Your task to perform on an android device: Open calendar and show me the third week of next month Image 0: 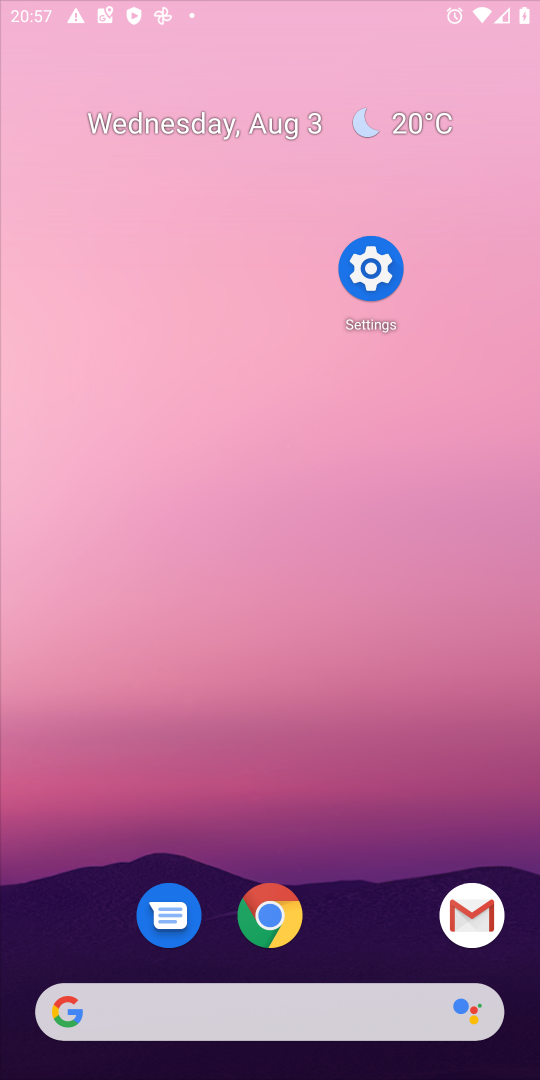
Step 0: press home button
Your task to perform on an android device: Open calendar and show me the third week of next month Image 1: 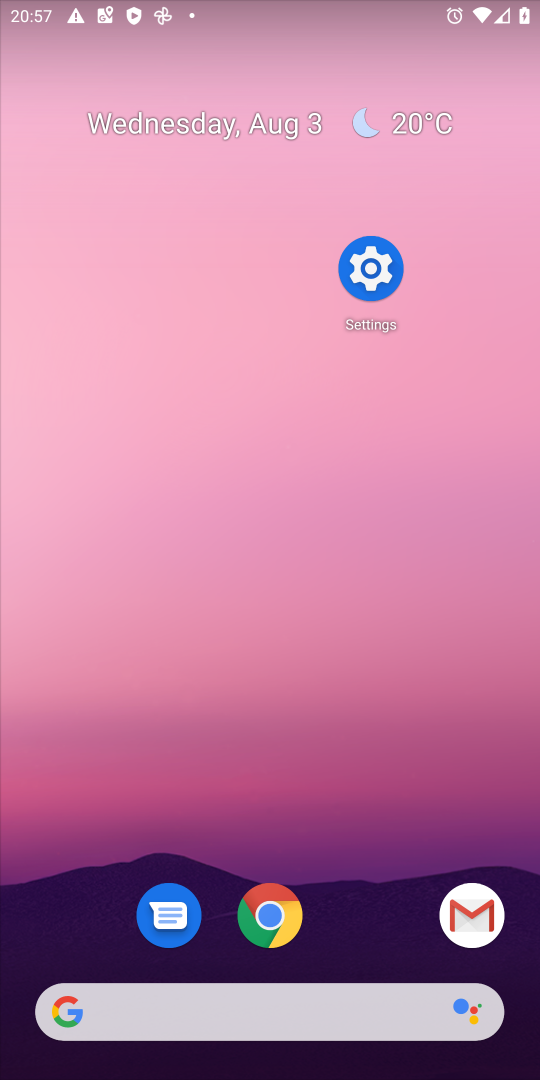
Step 1: drag from (353, 1009) to (251, 192)
Your task to perform on an android device: Open calendar and show me the third week of next month Image 2: 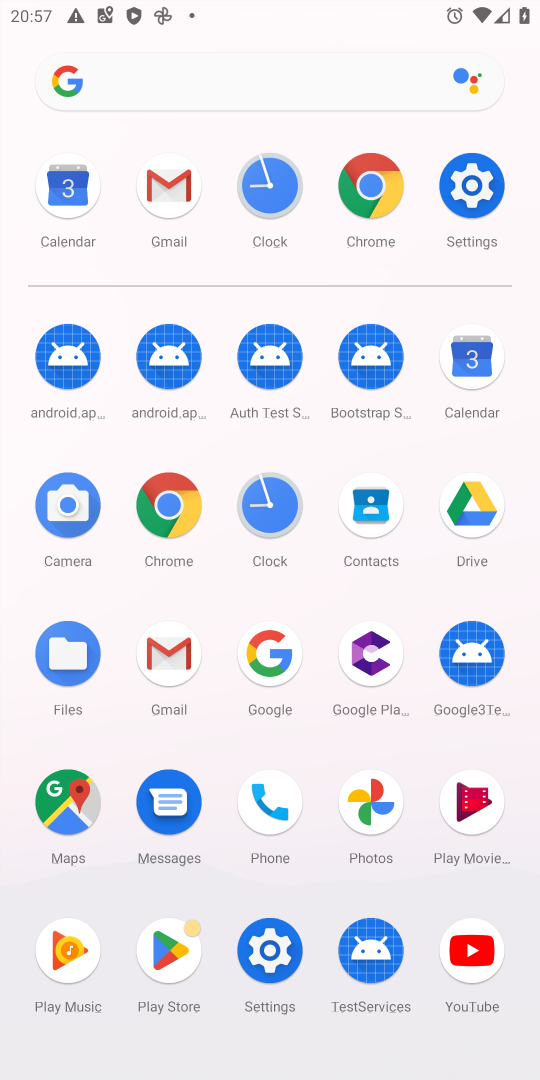
Step 2: click (477, 386)
Your task to perform on an android device: Open calendar and show me the third week of next month Image 3: 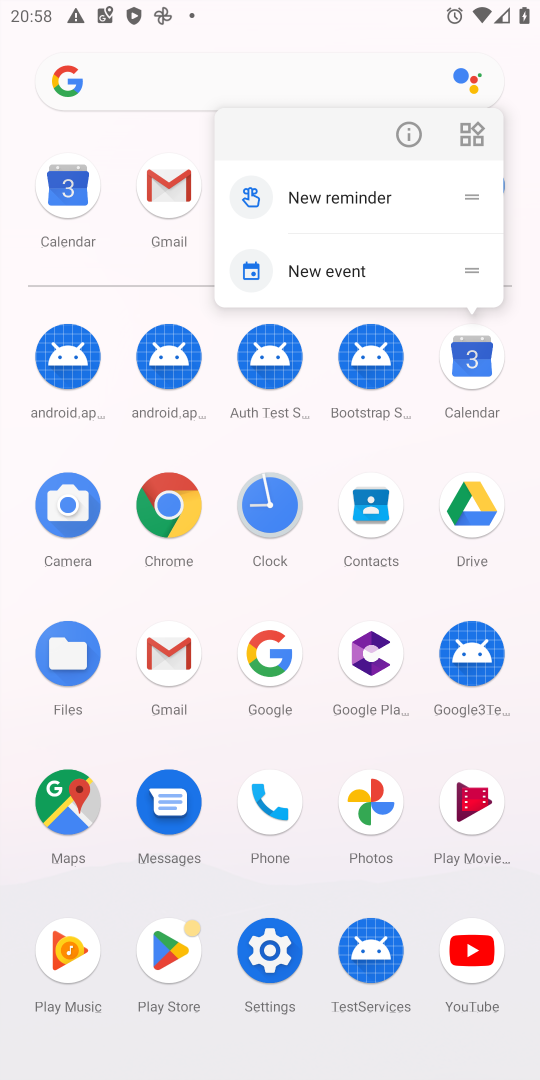
Step 3: click (468, 384)
Your task to perform on an android device: Open calendar and show me the third week of next month Image 4: 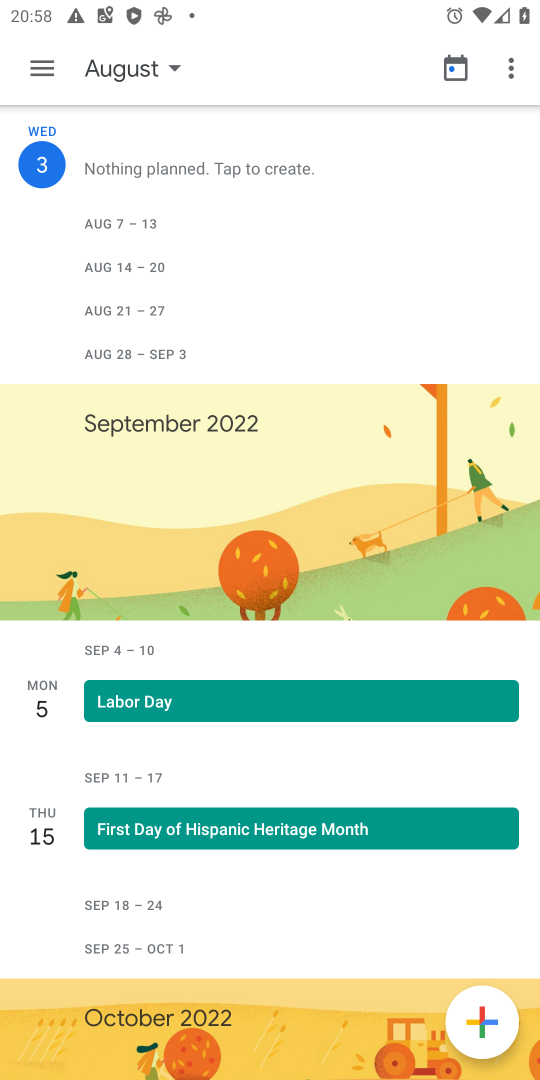
Step 4: click (23, 62)
Your task to perform on an android device: Open calendar and show me the third week of next month Image 5: 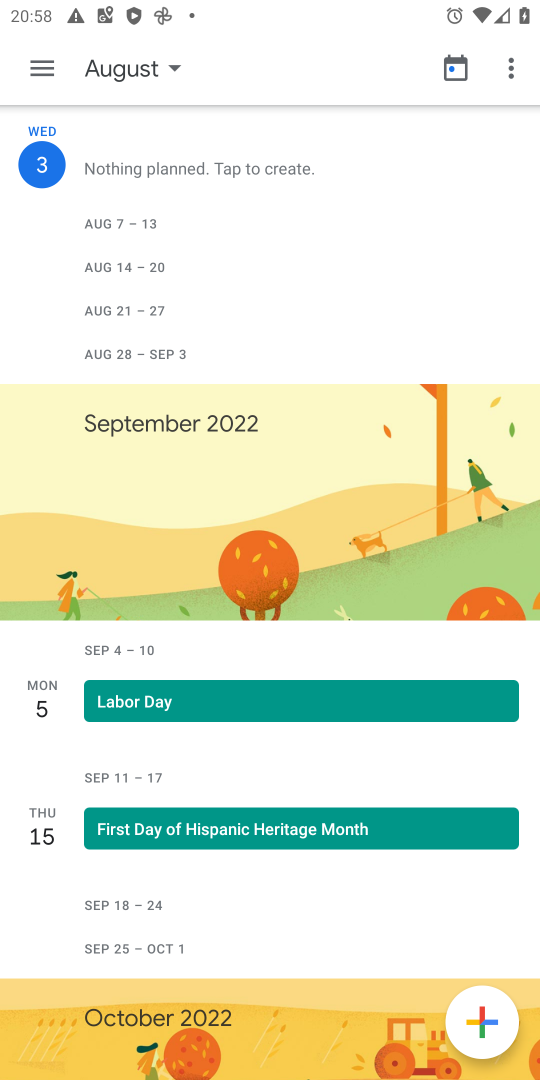
Step 5: click (44, 80)
Your task to perform on an android device: Open calendar and show me the third week of next month Image 6: 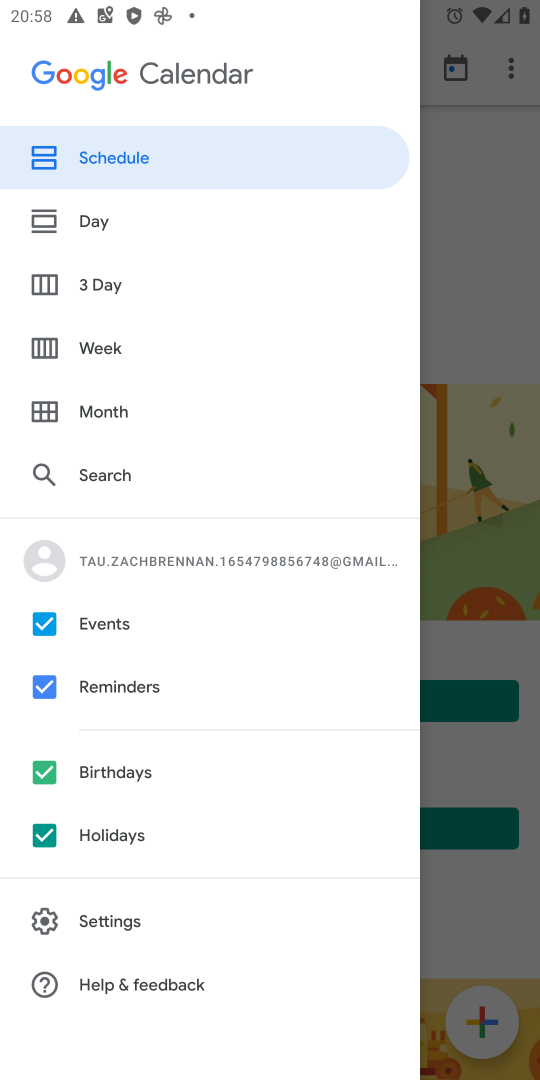
Step 6: click (88, 418)
Your task to perform on an android device: Open calendar and show me the third week of next month Image 7: 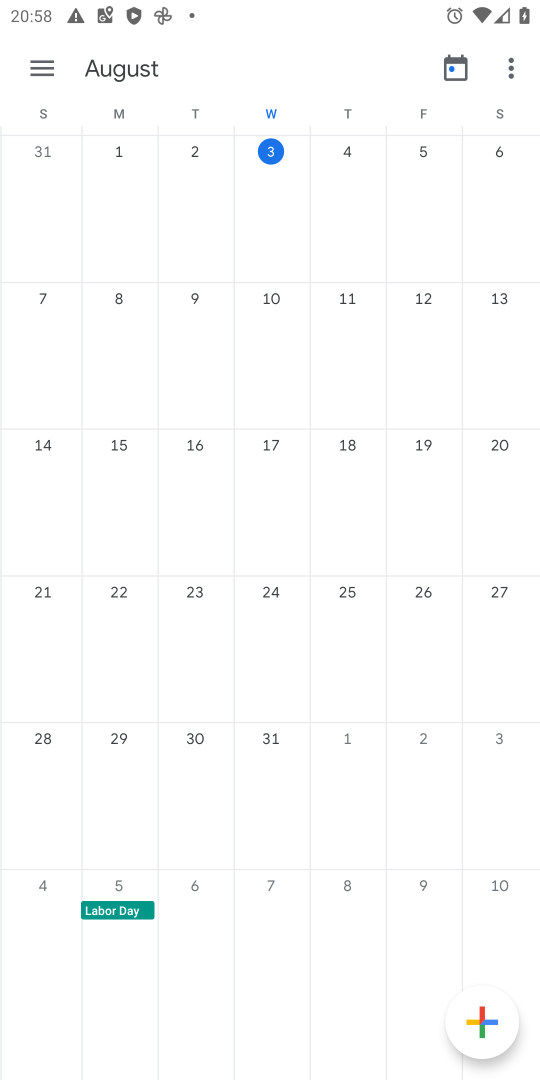
Step 7: drag from (506, 592) to (27, 541)
Your task to perform on an android device: Open calendar and show me the third week of next month Image 8: 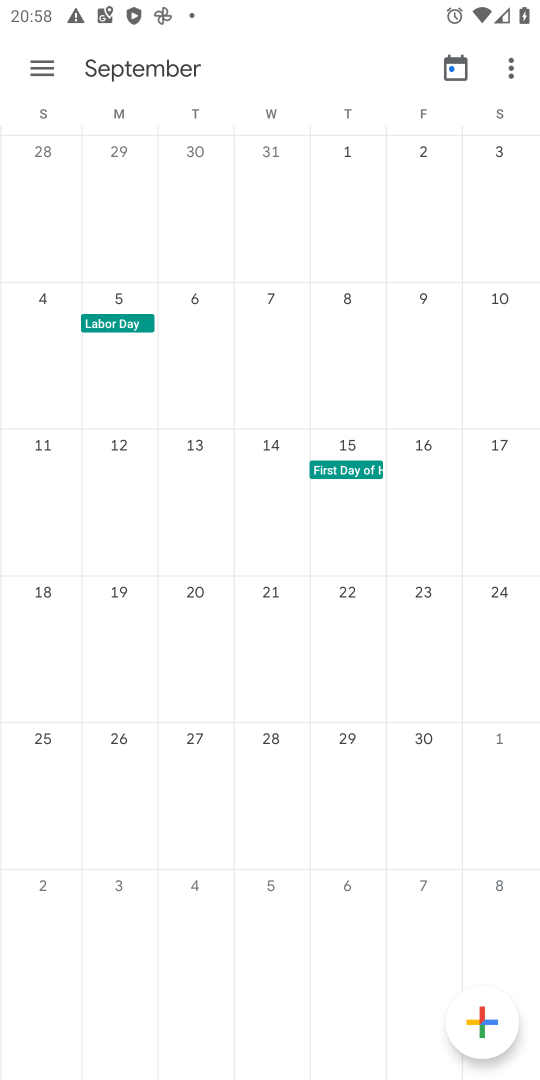
Step 8: click (129, 514)
Your task to perform on an android device: Open calendar and show me the third week of next month Image 9: 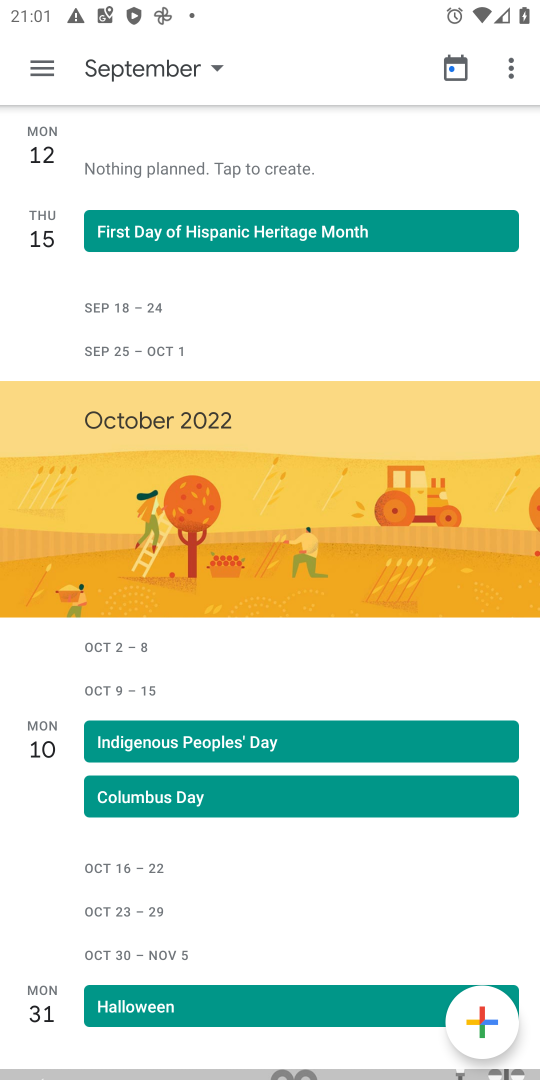
Step 9: task complete